Your task to perform on an android device: all mails in gmail Image 0: 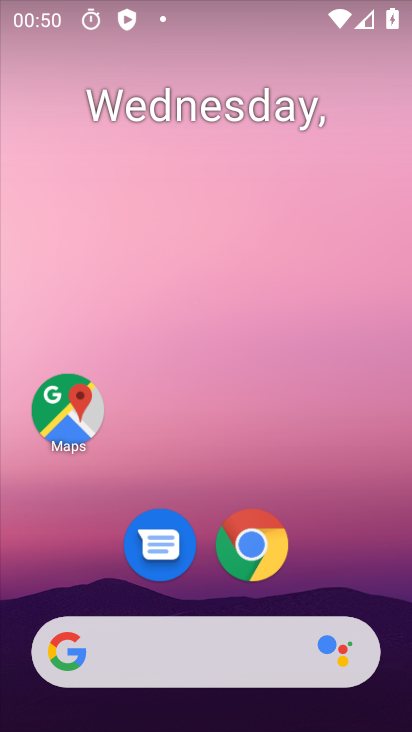
Step 0: drag from (357, 529) to (332, 94)
Your task to perform on an android device: all mails in gmail Image 1: 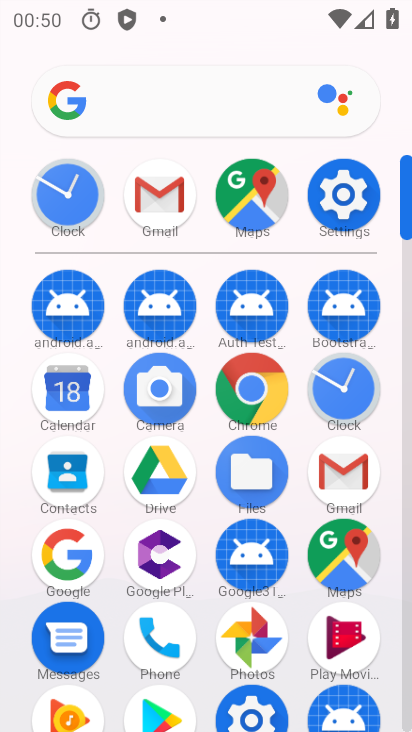
Step 1: click (170, 195)
Your task to perform on an android device: all mails in gmail Image 2: 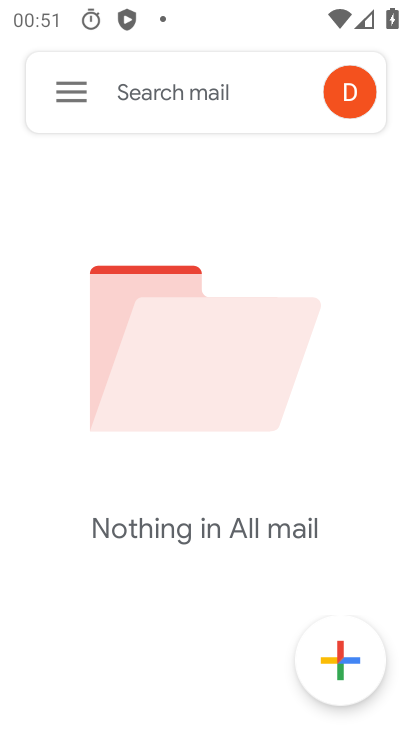
Step 2: task complete